Your task to perform on an android device: Go to network settings Image 0: 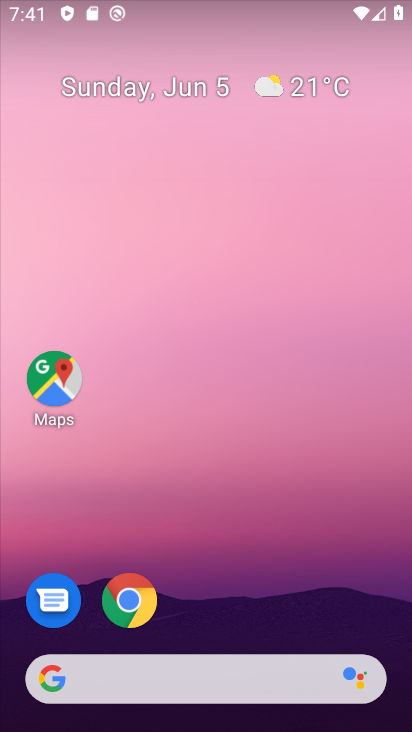
Step 0: drag from (215, 613) to (265, 1)
Your task to perform on an android device: Go to network settings Image 1: 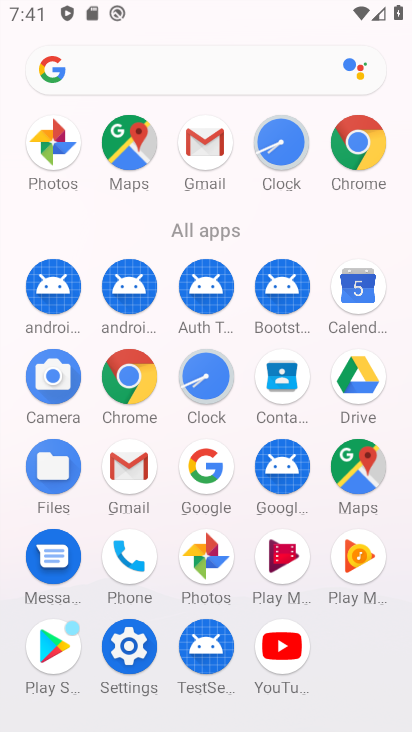
Step 1: click (128, 646)
Your task to perform on an android device: Go to network settings Image 2: 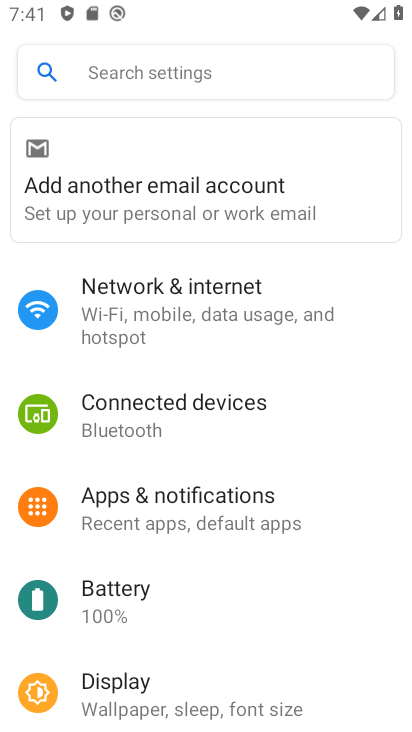
Step 2: click (215, 300)
Your task to perform on an android device: Go to network settings Image 3: 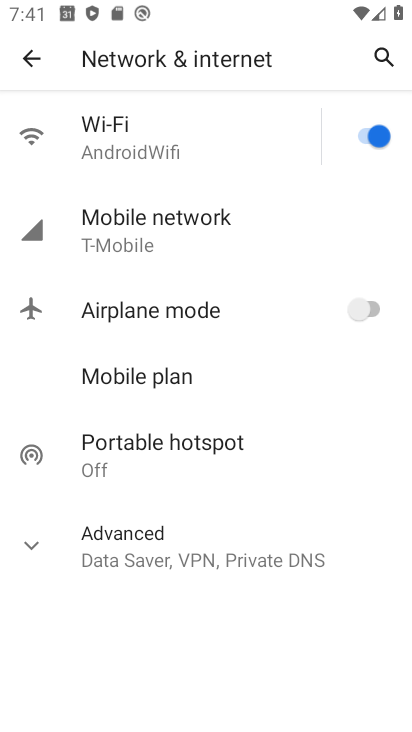
Step 3: task complete